Your task to perform on an android device: Go to internet settings Image 0: 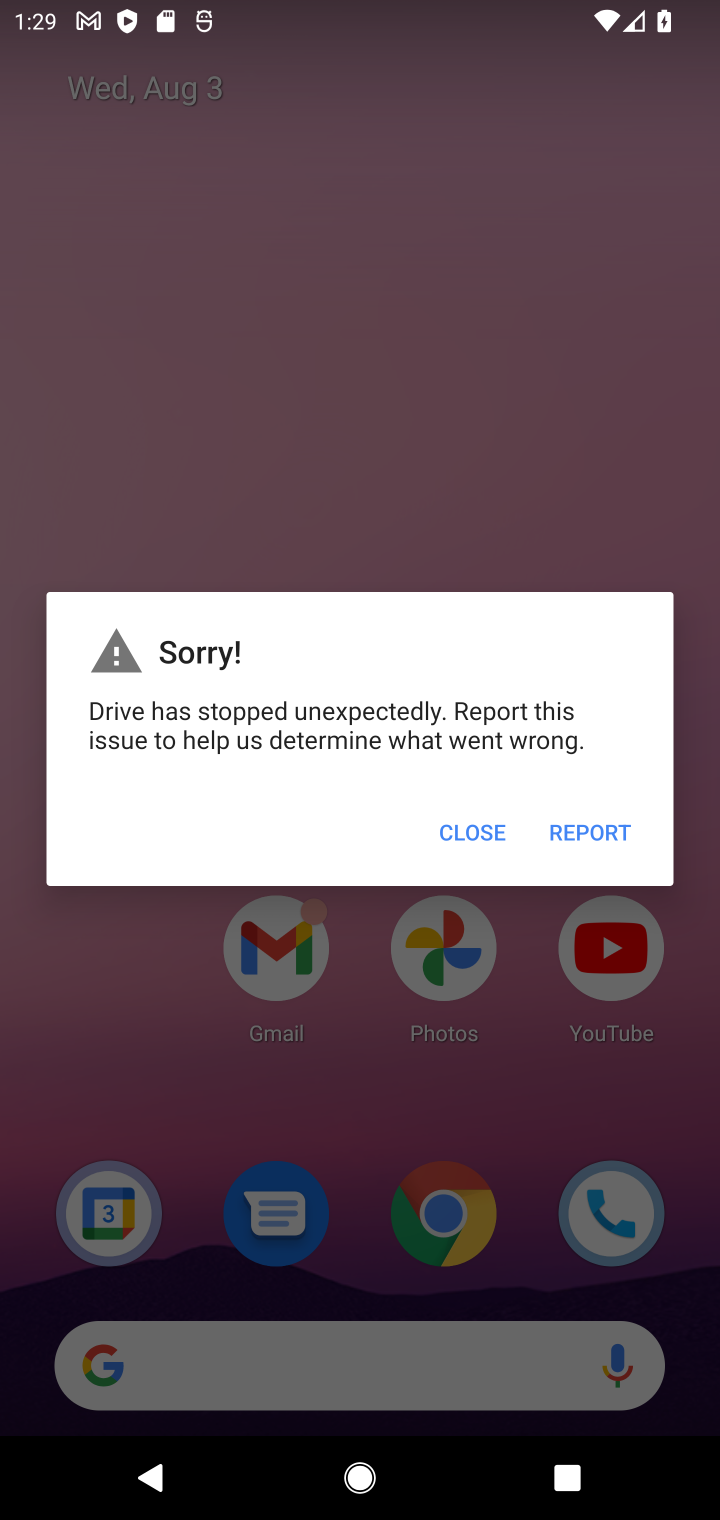
Step 0: press home button
Your task to perform on an android device: Go to internet settings Image 1: 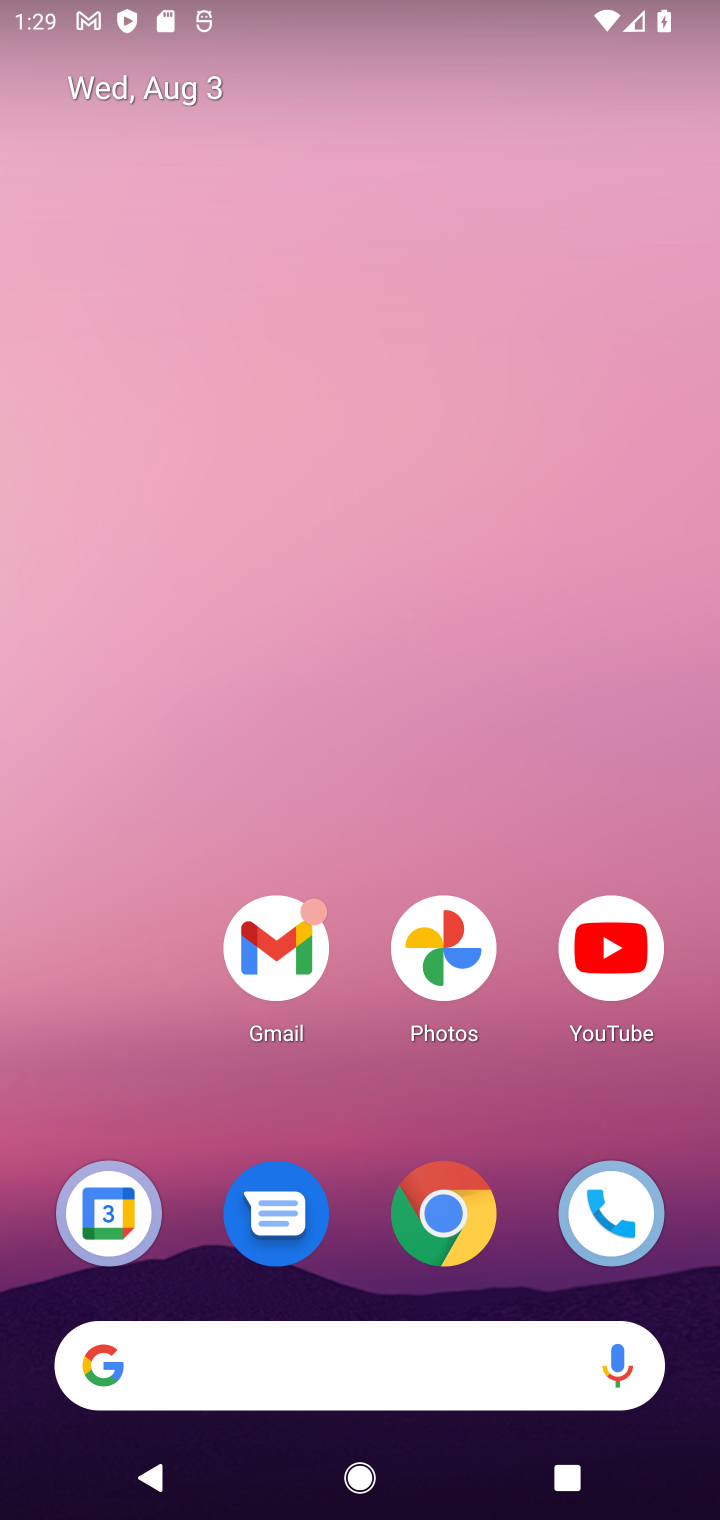
Step 1: drag from (386, 1321) to (501, 0)
Your task to perform on an android device: Go to internet settings Image 2: 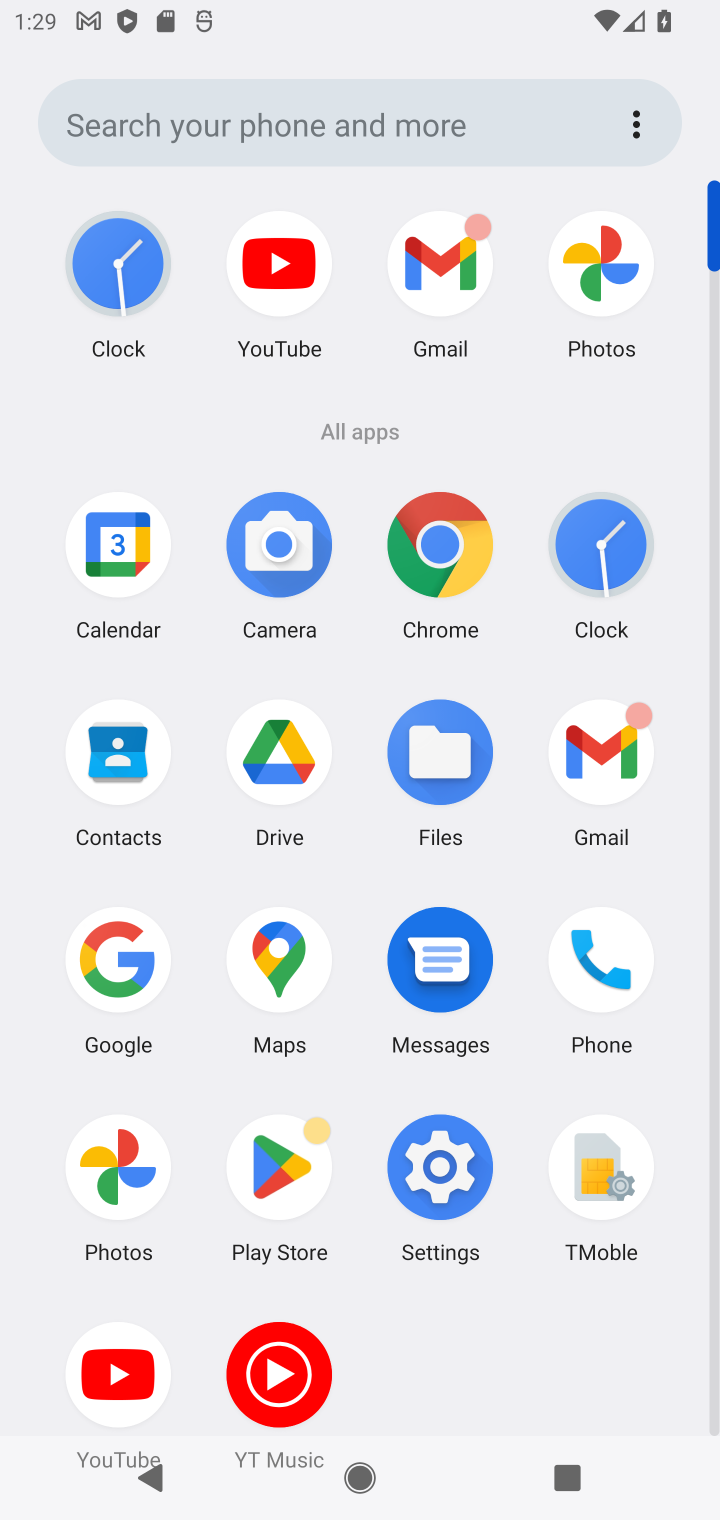
Step 2: click (436, 1175)
Your task to perform on an android device: Go to internet settings Image 3: 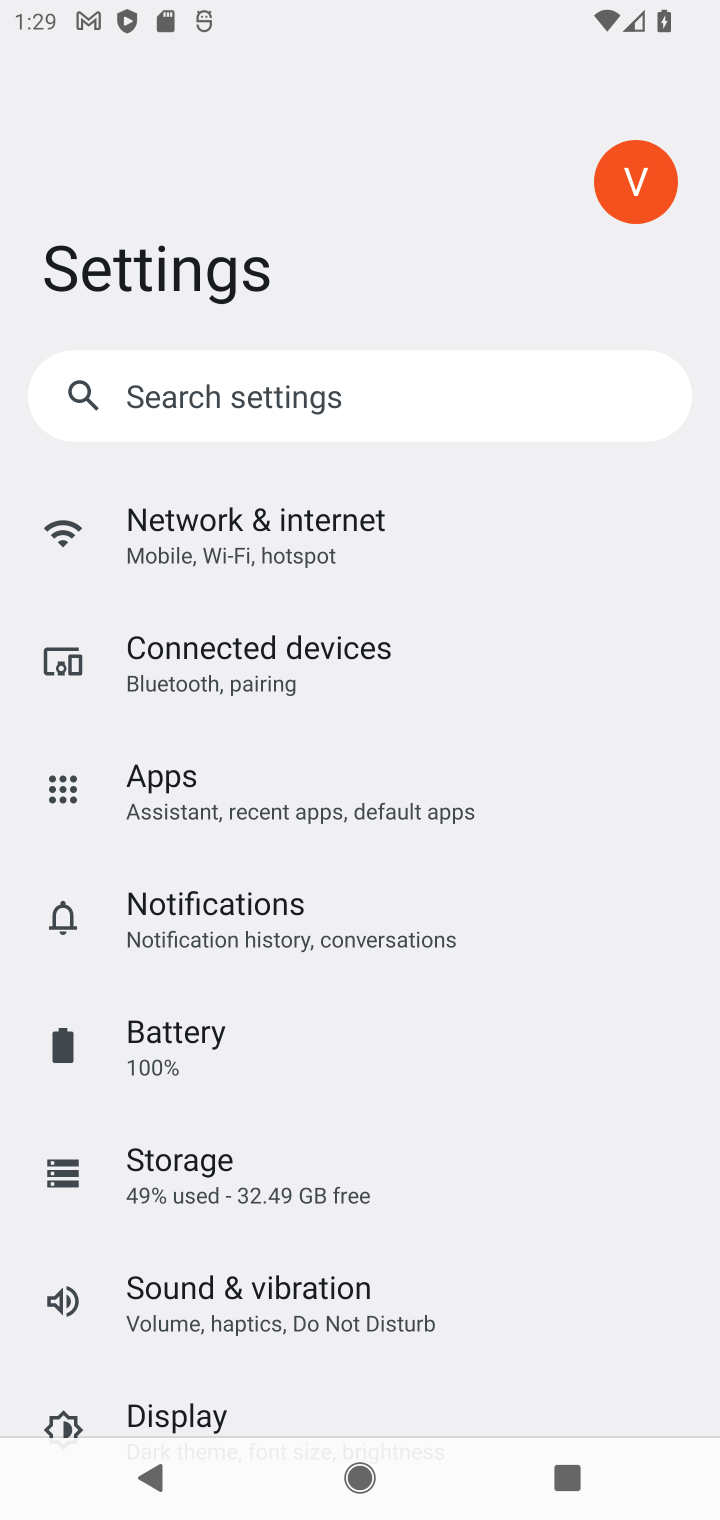
Step 3: click (303, 555)
Your task to perform on an android device: Go to internet settings Image 4: 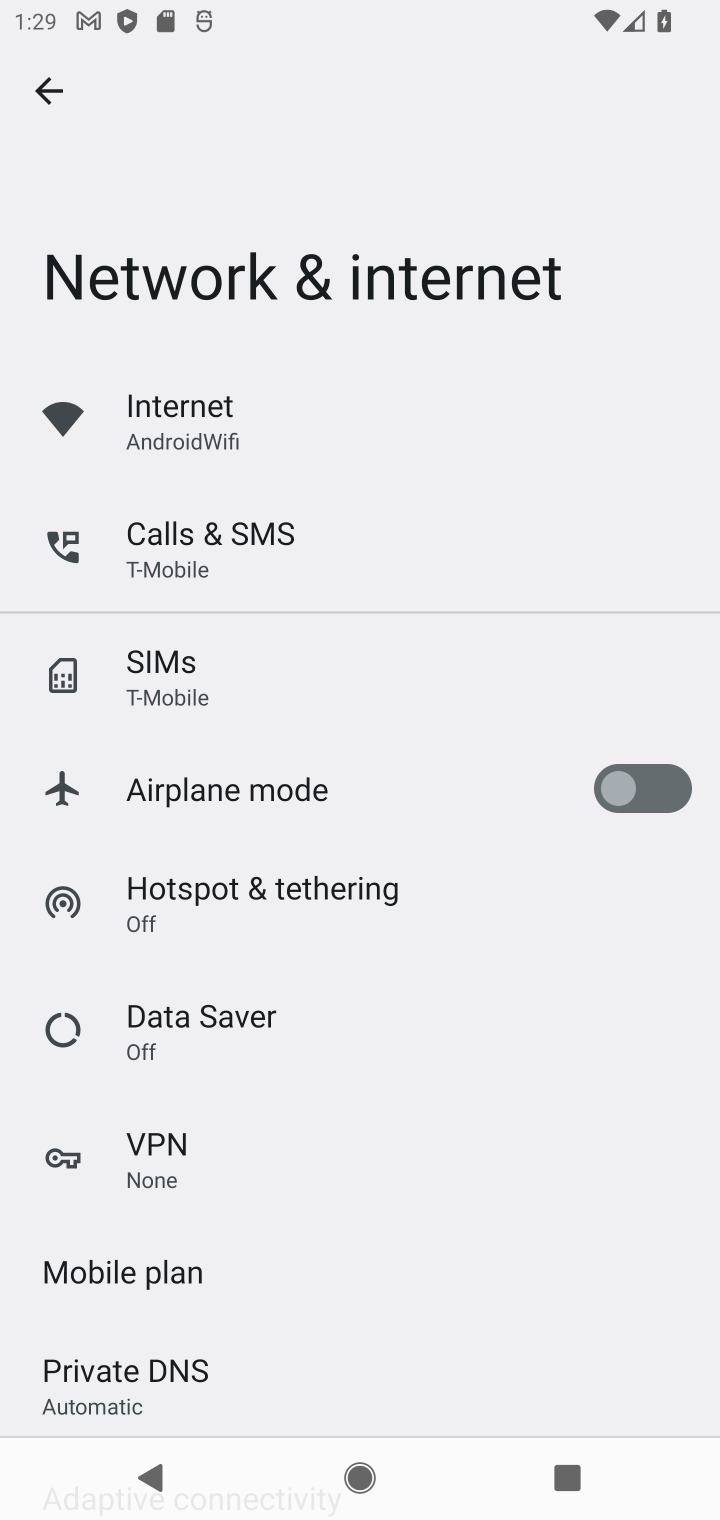
Step 4: click (180, 415)
Your task to perform on an android device: Go to internet settings Image 5: 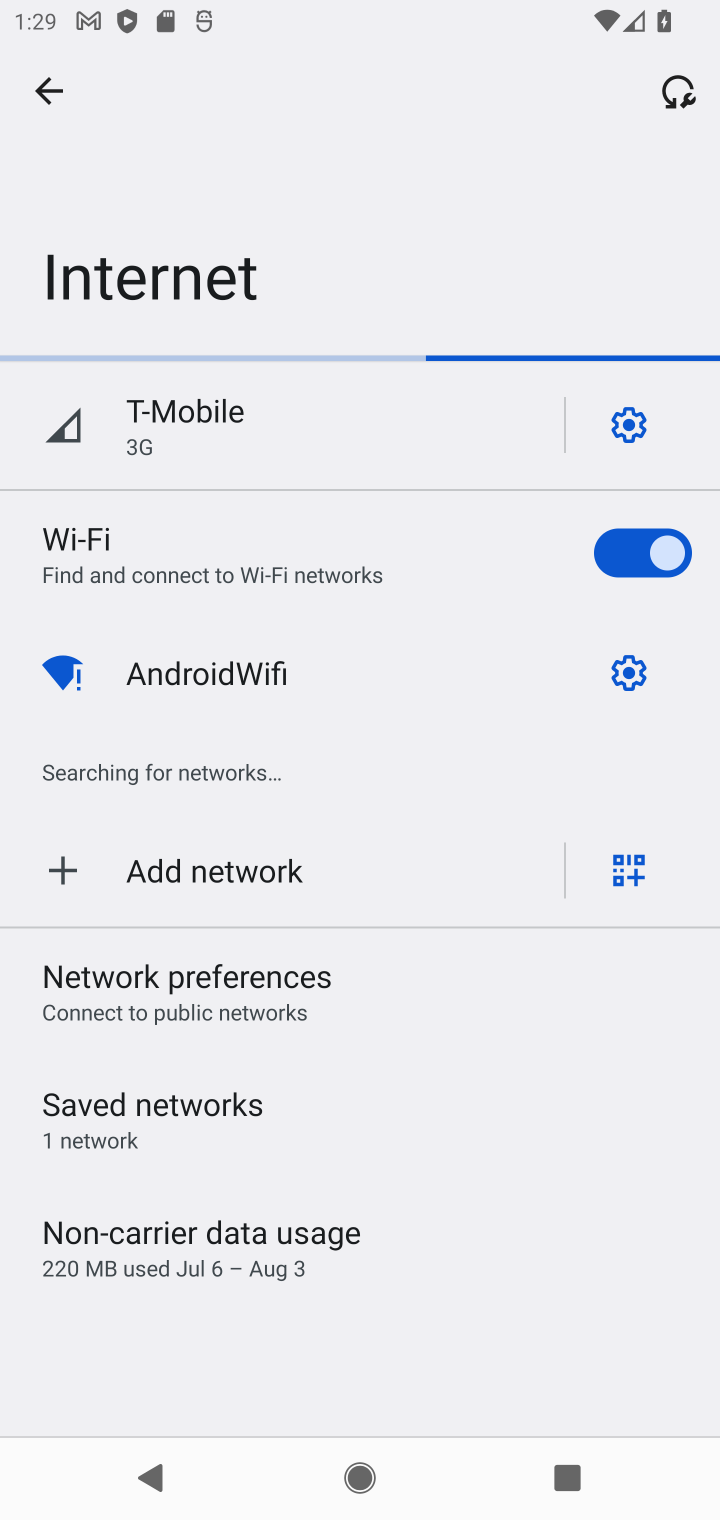
Step 5: task complete